Your task to perform on an android device: set the stopwatch Image 0: 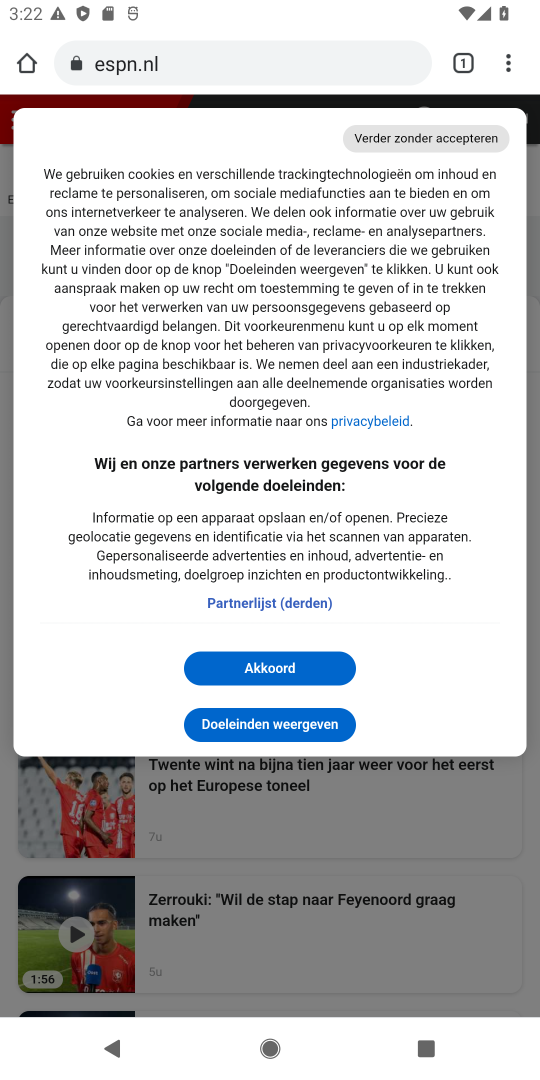
Step 0: press home button
Your task to perform on an android device: set the stopwatch Image 1: 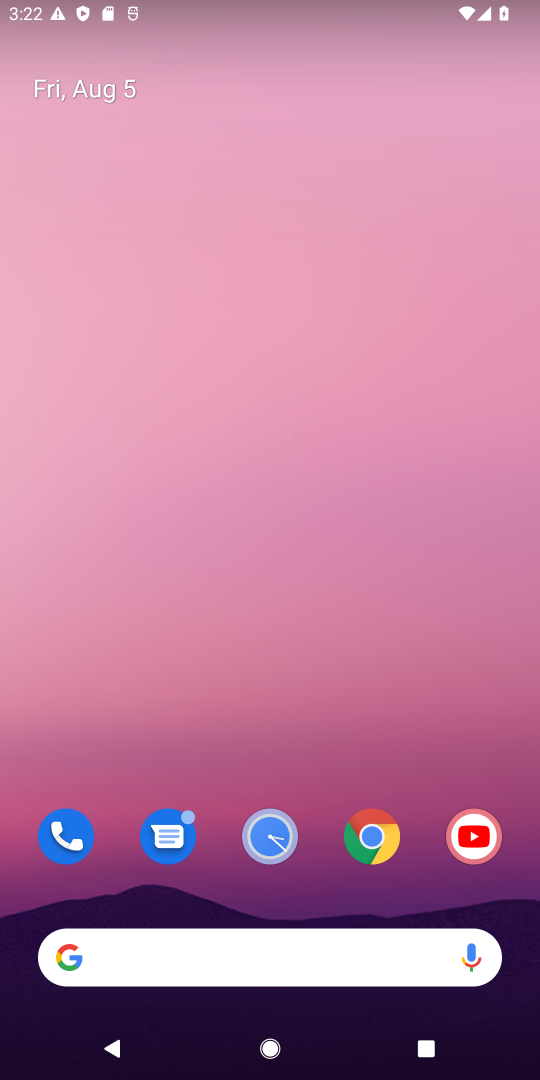
Step 1: click (256, 835)
Your task to perform on an android device: set the stopwatch Image 2: 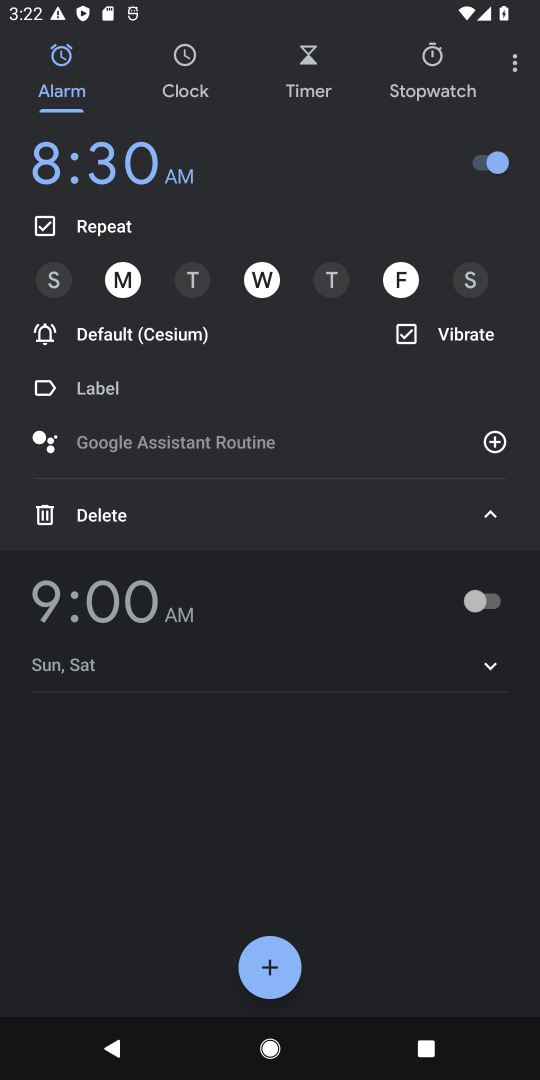
Step 2: click (333, 795)
Your task to perform on an android device: set the stopwatch Image 3: 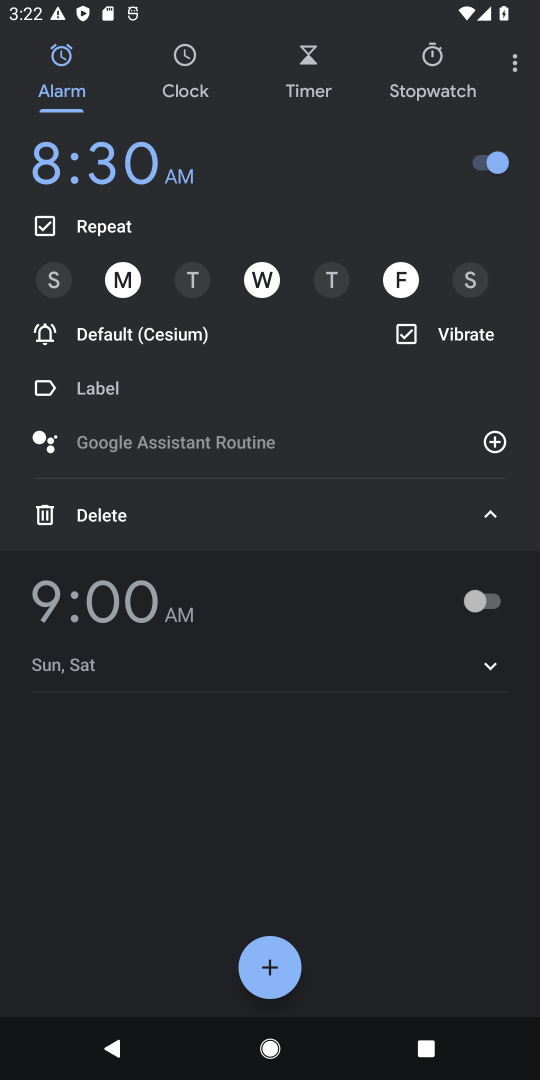
Step 3: click (415, 72)
Your task to perform on an android device: set the stopwatch Image 4: 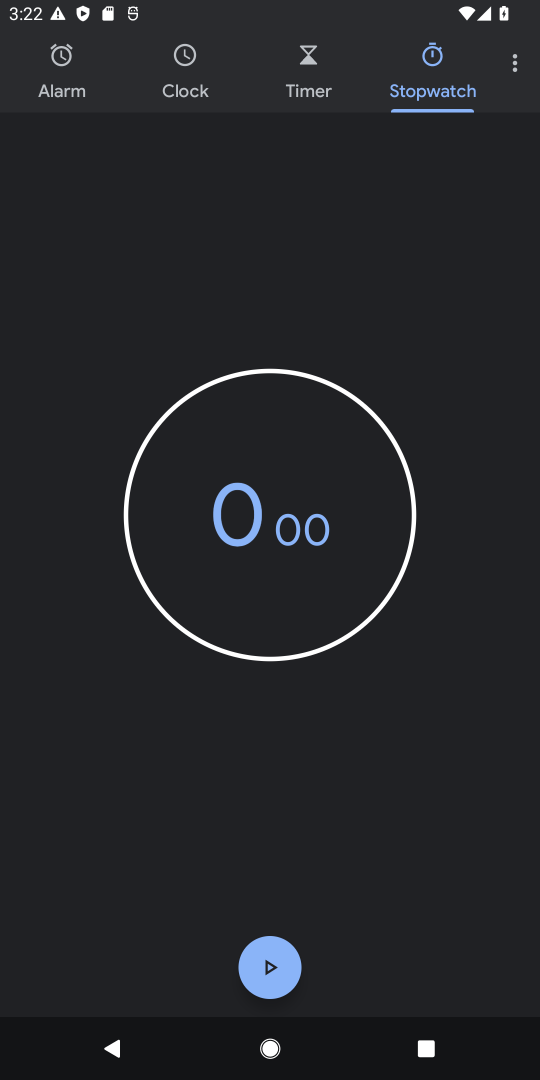
Step 4: click (286, 968)
Your task to perform on an android device: set the stopwatch Image 5: 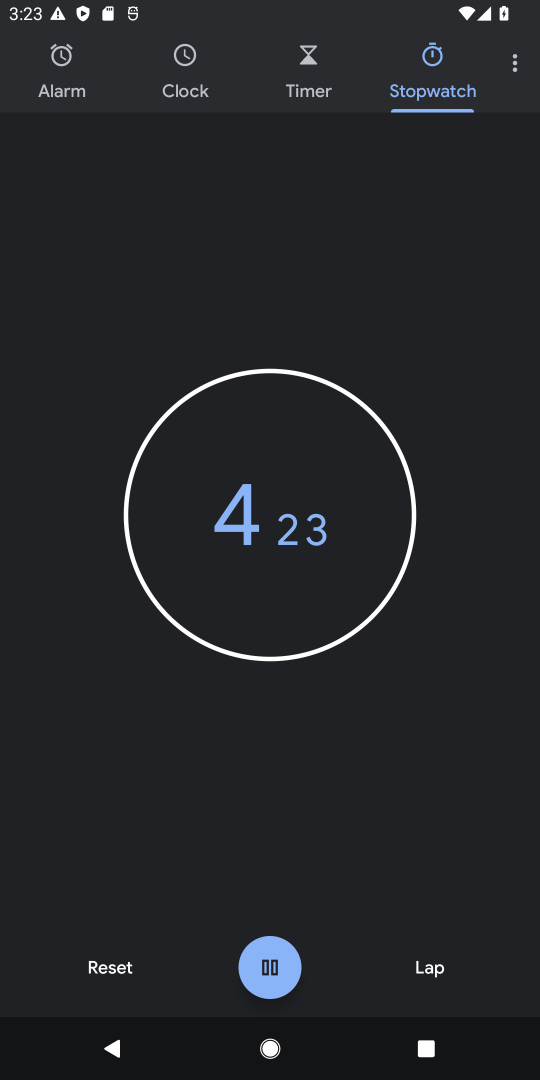
Step 5: task complete